Your task to perform on an android device: toggle javascript in the chrome app Image 0: 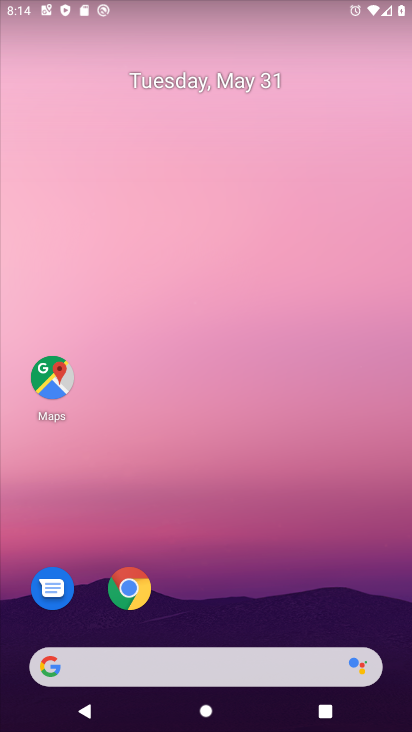
Step 0: click (117, 586)
Your task to perform on an android device: toggle javascript in the chrome app Image 1: 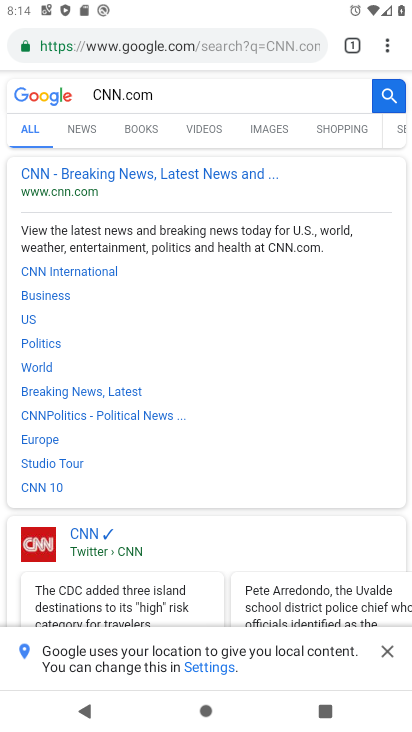
Step 1: click (392, 51)
Your task to perform on an android device: toggle javascript in the chrome app Image 2: 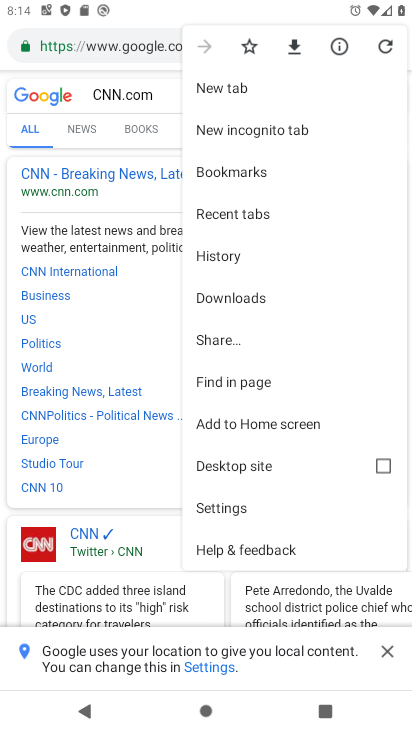
Step 2: click (214, 502)
Your task to perform on an android device: toggle javascript in the chrome app Image 3: 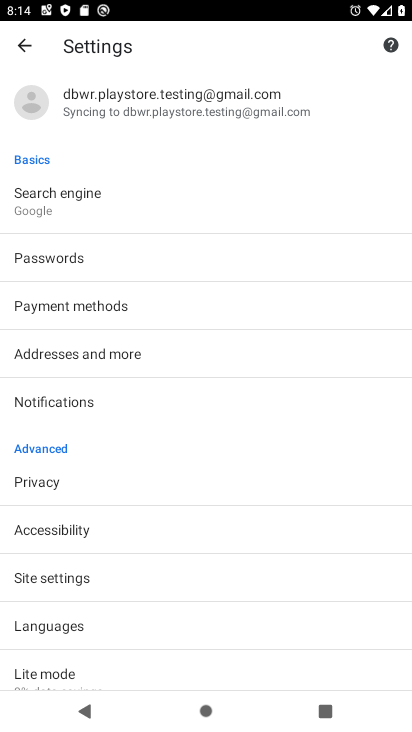
Step 3: drag from (59, 638) to (94, 469)
Your task to perform on an android device: toggle javascript in the chrome app Image 4: 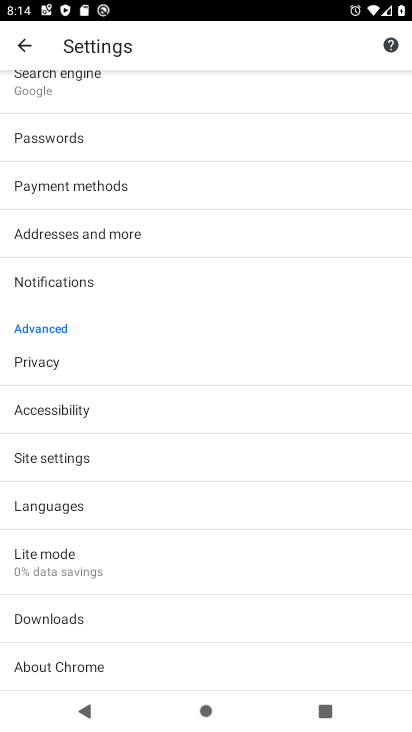
Step 4: click (67, 450)
Your task to perform on an android device: toggle javascript in the chrome app Image 5: 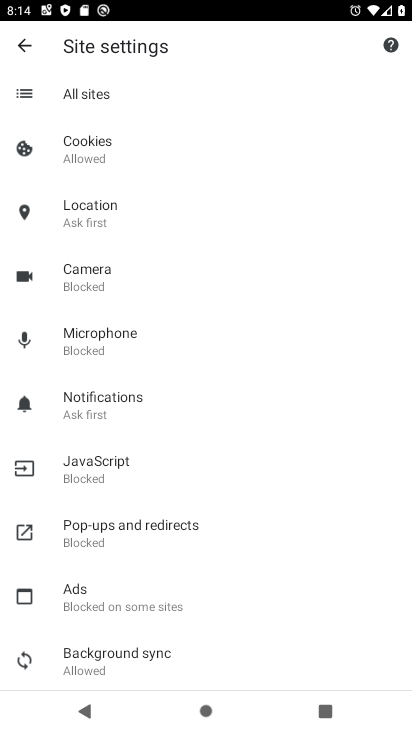
Step 5: click (88, 475)
Your task to perform on an android device: toggle javascript in the chrome app Image 6: 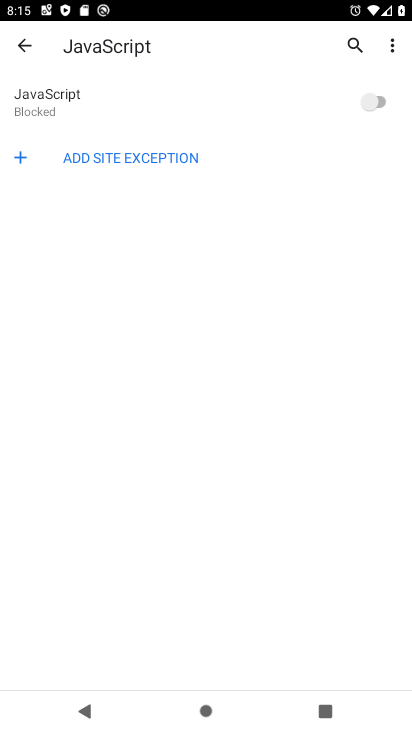
Step 6: click (389, 96)
Your task to perform on an android device: toggle javascript in the chrome app Image 7: 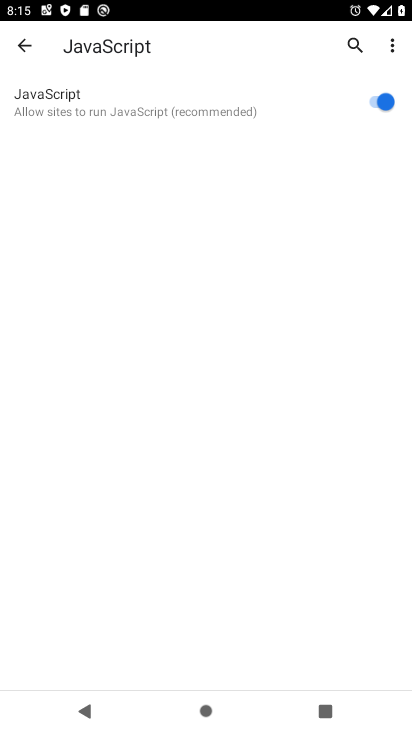
Step 7: task complete